Your task to perform on an android device: toggle notifications settings in the gmail app Image 0: 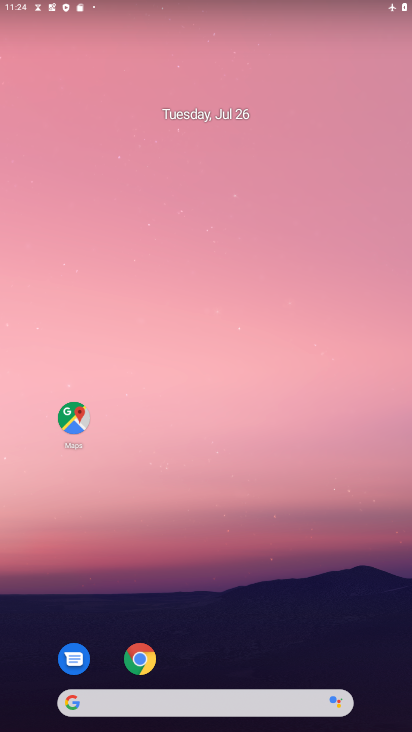
Step 0: drag from (172, 696) to (275, 73)
Your task to perform on an android device: toggle notifications settings in the gmail app Image 1: 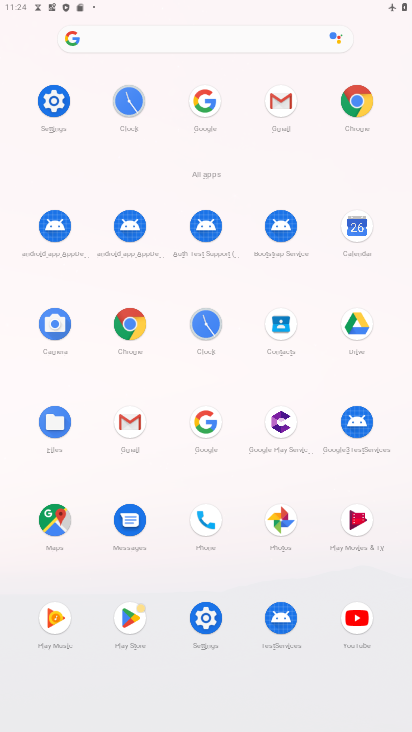
Step 1: click (280, 99)
Your task to perform on an android device: toggle notifications settings in the gmail app Image 2: 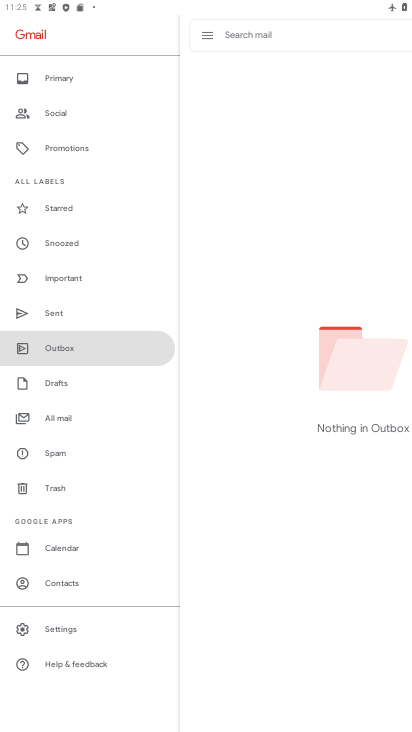
Step 2: click (60, 630)
Your task to perform on an android device: toggle notifications settings in the gmail app Image 3: 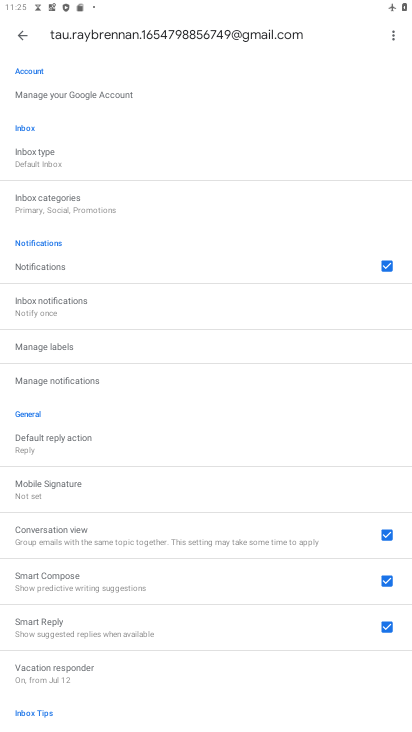
Step 3: click (84, 381)
Your task to perform on an android device: toggle notifications settings in the gmail app Image 4: 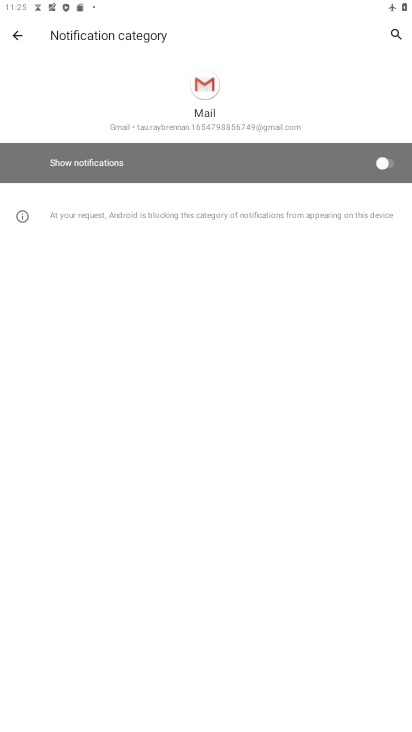
Step 4: click (382, 162)
Your task to perform on an android device: toggle notifications settings in the gmail app Image 5: 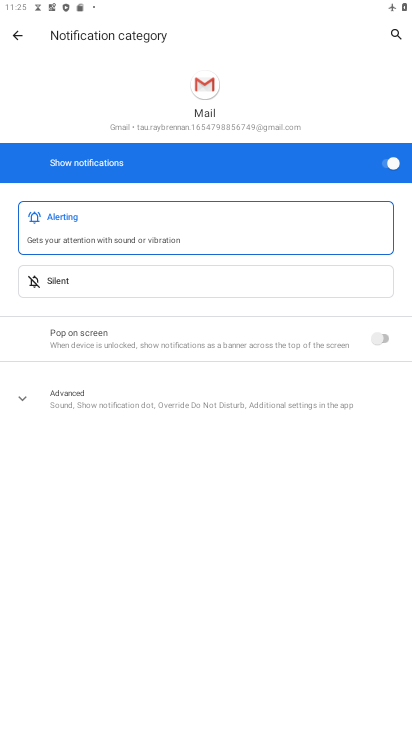
Step 5: task complete